Your task to perform on an android device: allow notifications from all sites in the chrome app Image 0: 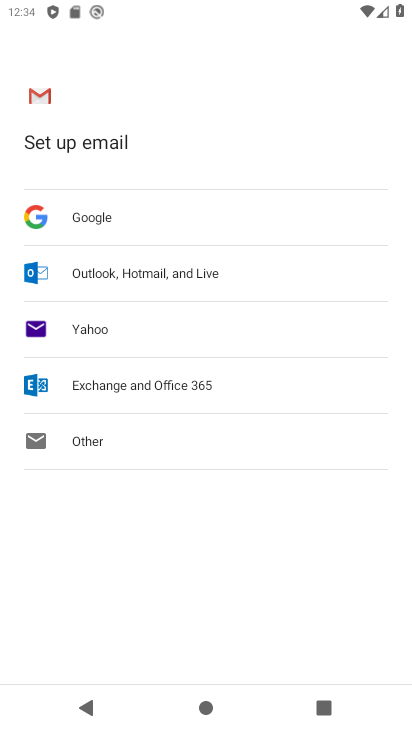
Step 0: press home button
Your task to perform on an android device: allow notifications from all sites in the chrome app Image 1: 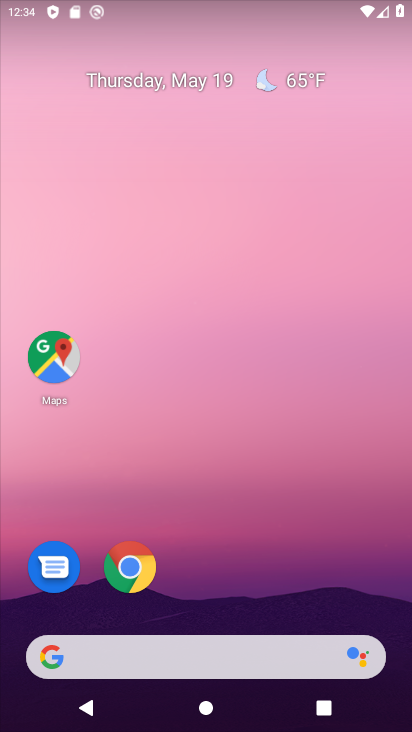
Step 1: click (138, 569)
Your task to perform on an android device: allow notifications from all sites in the chrome app Image 2: 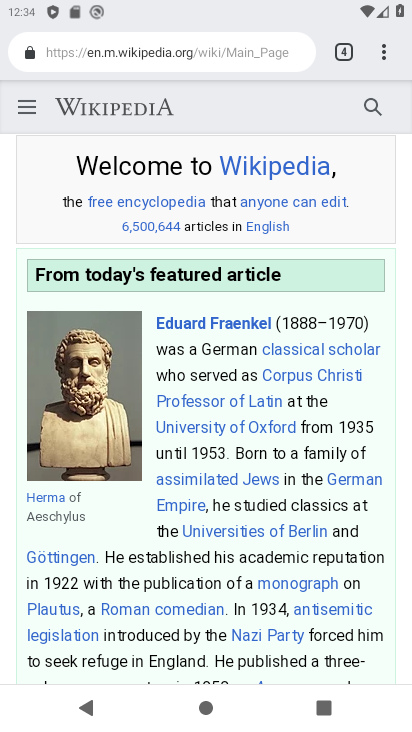
Step 2: click (388, 49)
Your task to perform on an android device: allow notifications from all sites in the chrome app Image 3: 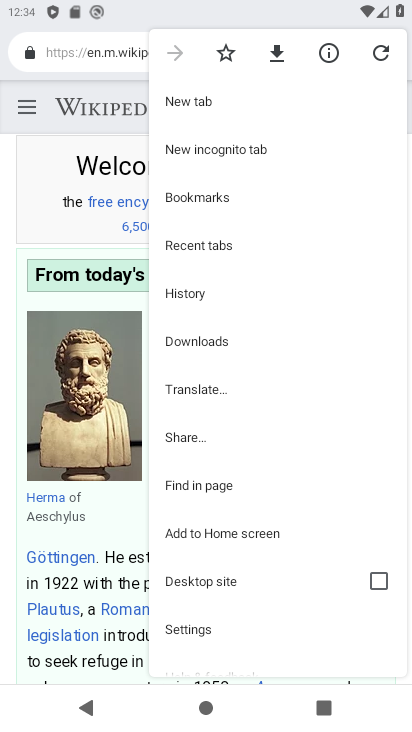
Step 3: click (199, 628)
Your task to perform on an android device: allow notifications from all sites in the chrome app Image 4: 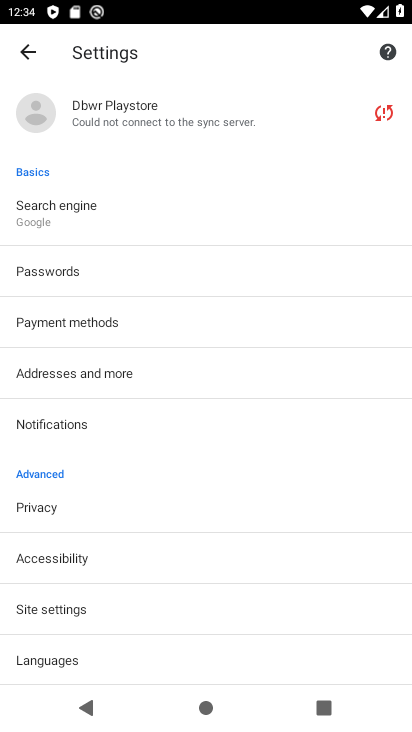
Step 4: click (47, 429)
Your task to perform on an android device: allow notifications from all sites in the chrome app Image 5: 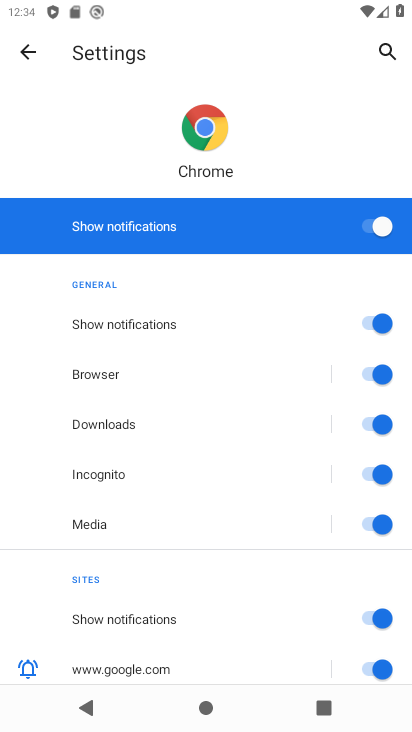
Step 5: task complete